Your task to perform on an android device: Search for Mexican restaurants on Maps Image 0: 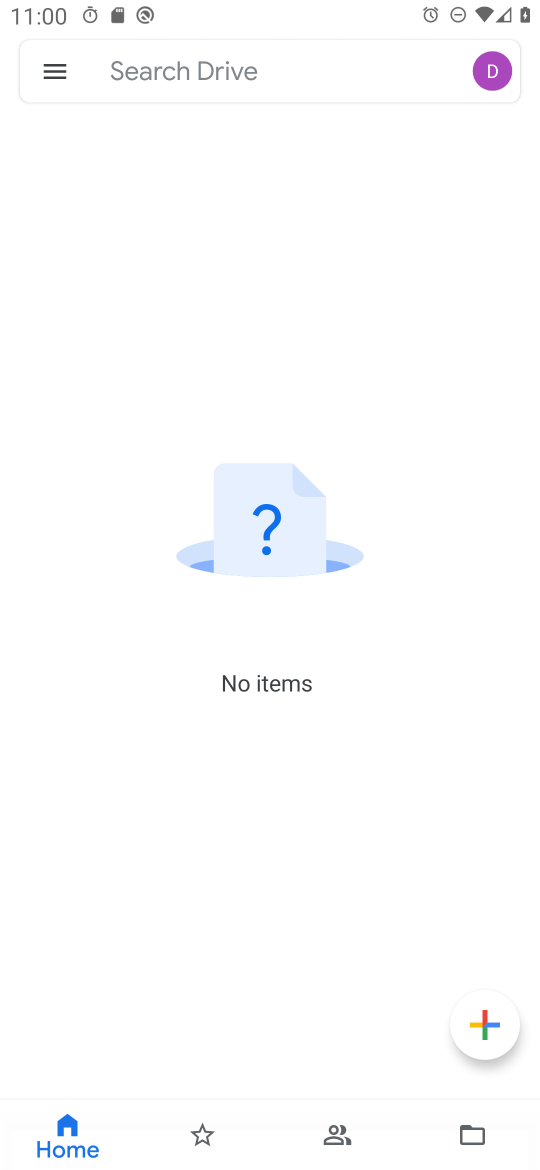
Step 0: press back button
Your task to perform on an android device: Search for Mexican restaurants on Maps Image 1: 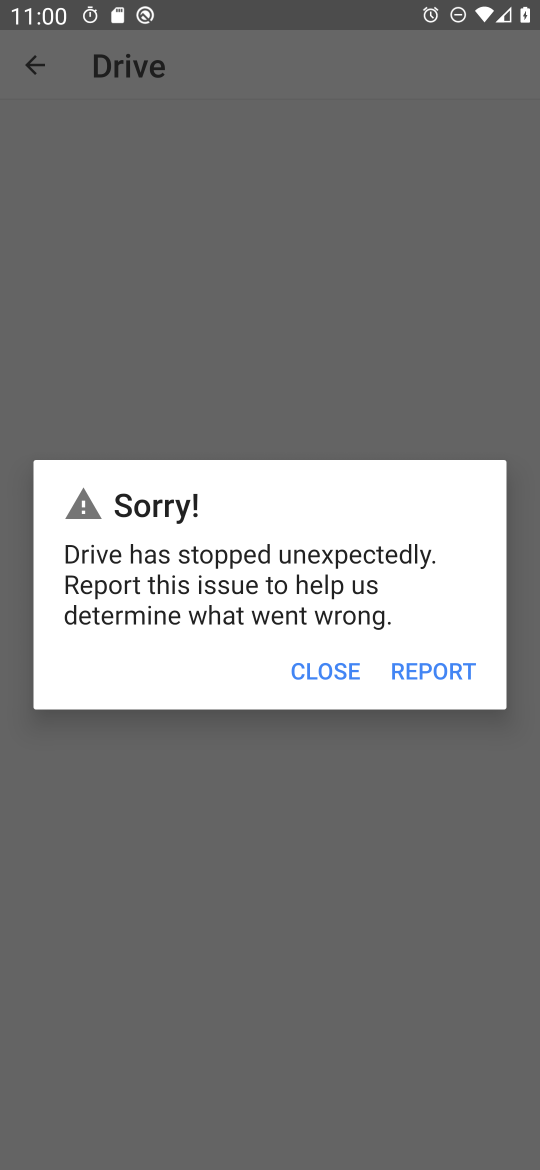
Step 1: press home button
Your task to perform on an android device: Search for Mexican restaurants on Maps Image 2: 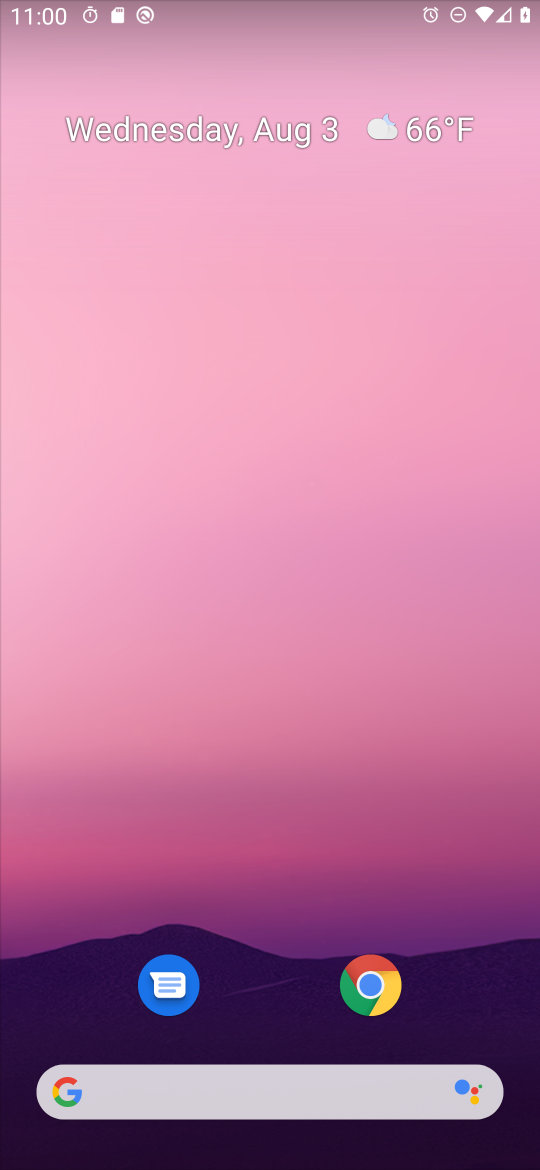
Step 2: drag from (292, 888) to (332, 399)
Your task to perform on an android device: Search for Mexican restaurants on Maps Image 3: 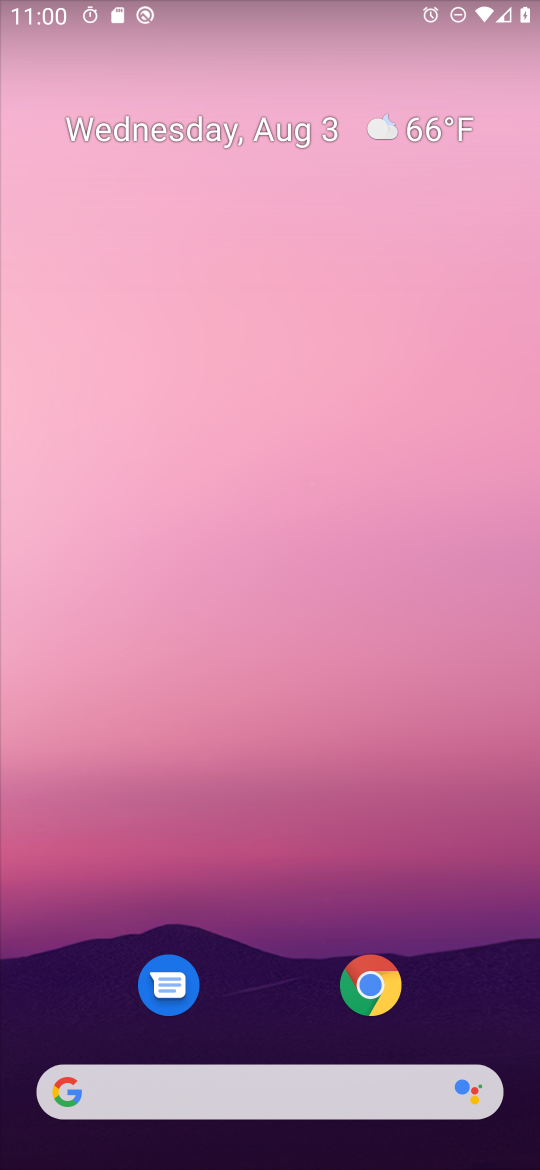
Step 3: drag from (227, 953) to (259, 232)
Your task to perform on an android device: Search for Mexican restaurants on Maps Image 4: 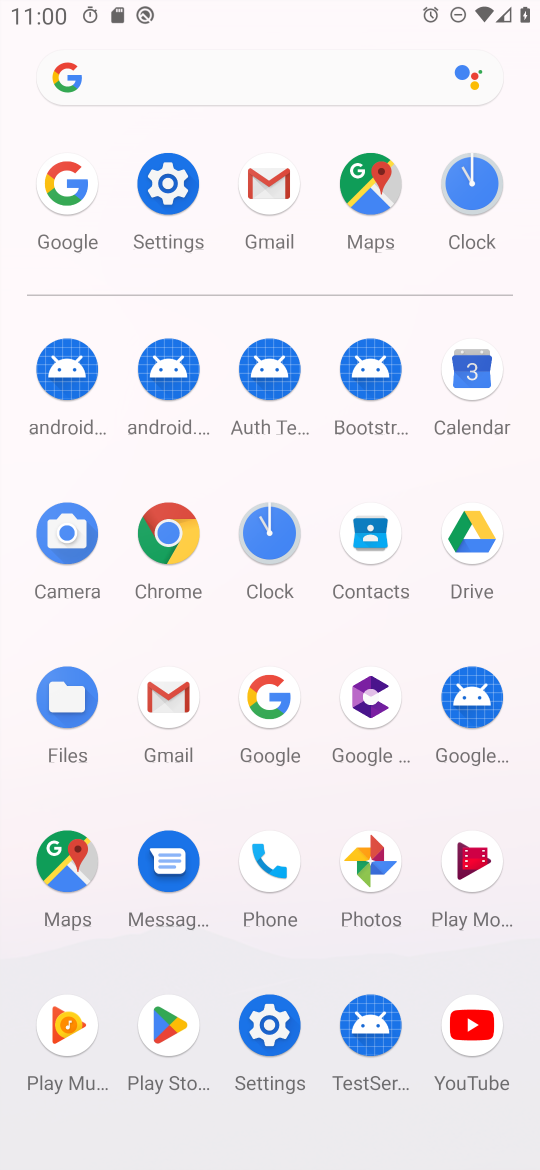
Step 4: click (66, 875)
Your task to perform on an android device: Search for Mexican restaurants on Maps Image 5: 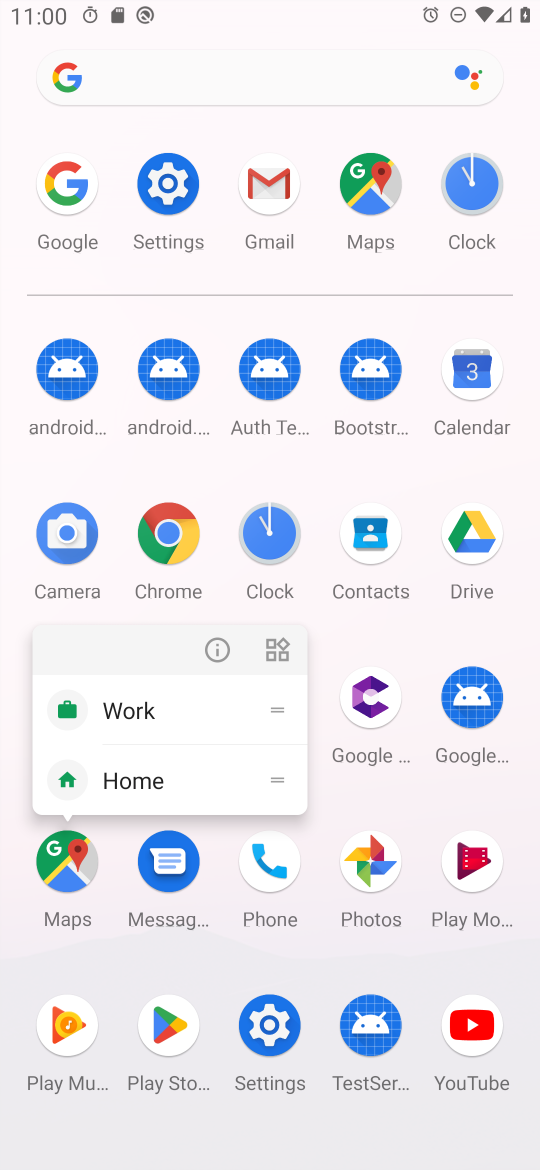
Step 5: click (66, 882)
Your task to perform on an android device: Search for Mexican restaurants on Maps Image 6: 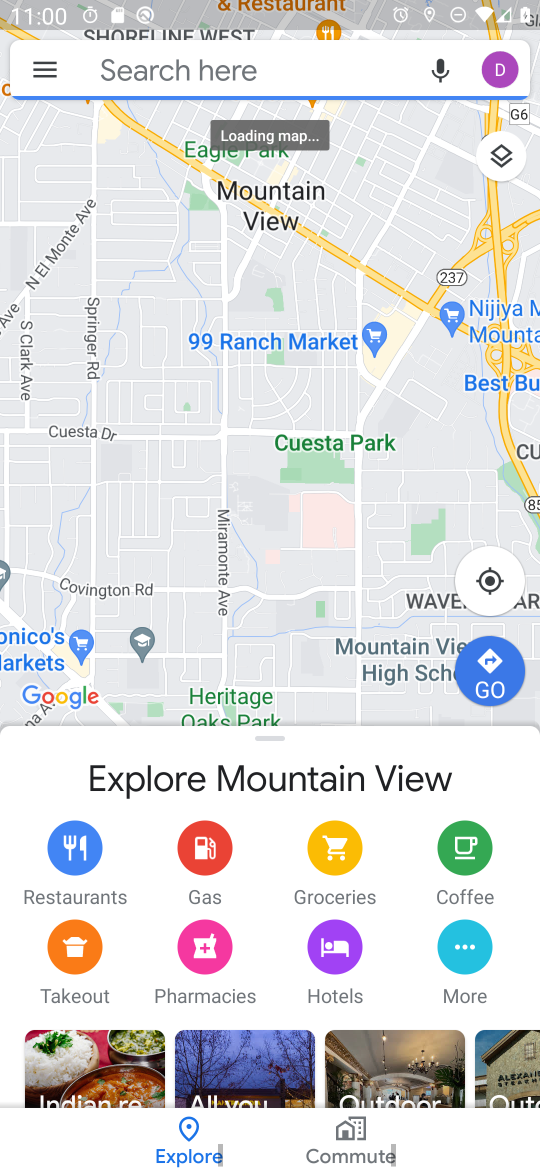
Step 6: click (291, 81)
Your task to perform on an android device: Search for Mexican restaurants on Maps Image 7: 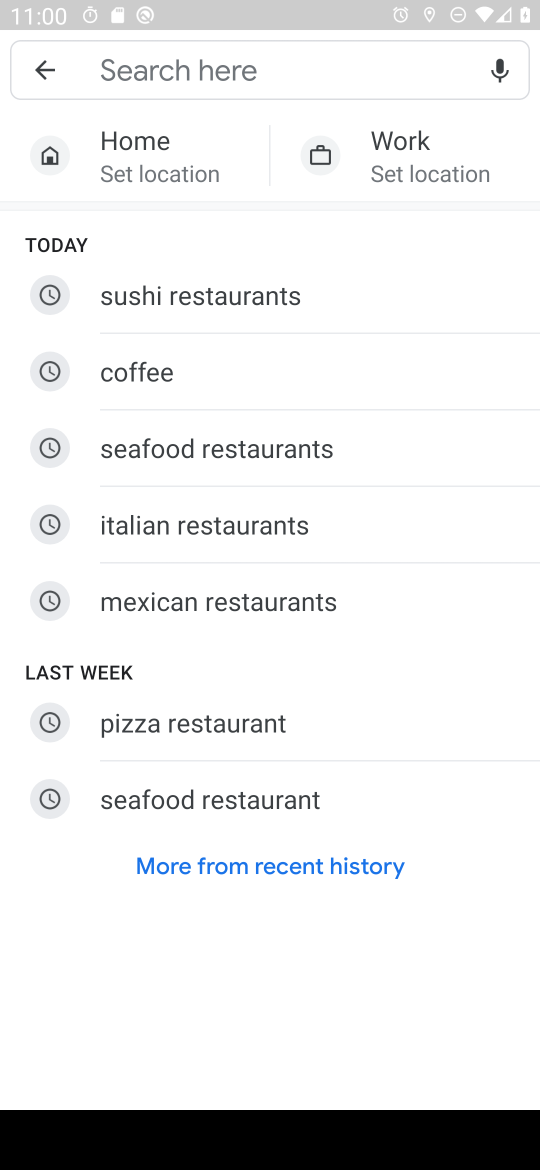
Step 7: type "Mexican restaurants"
Your task to perform on an android device: Search for Mexican restaurants on Maps Image 8: 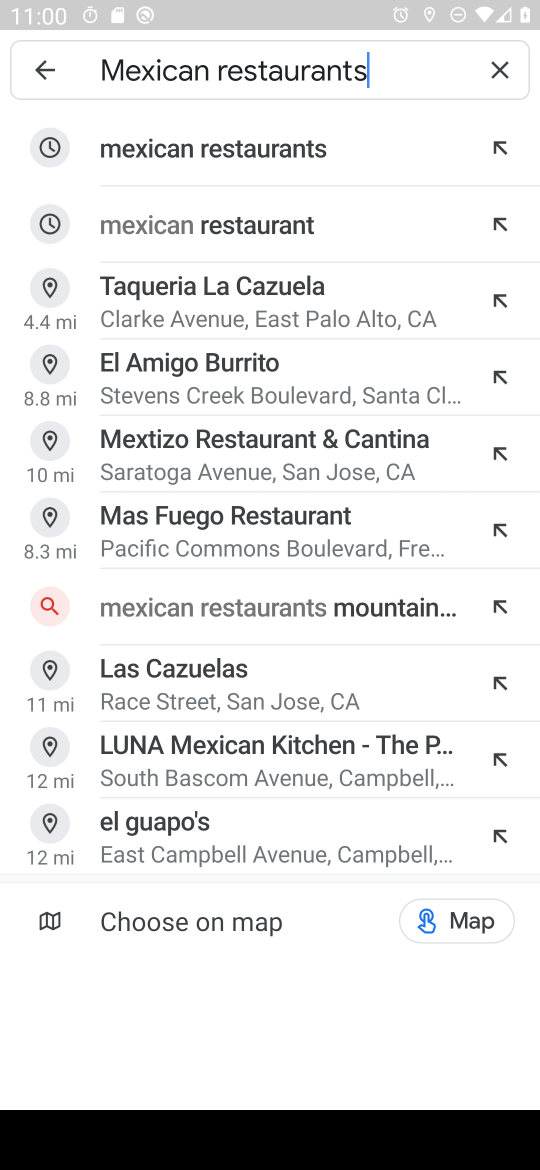
Step 8: click (220, 147)
Your task to perform on an android device: Search for Mexican restaurants on Maps Image 9: 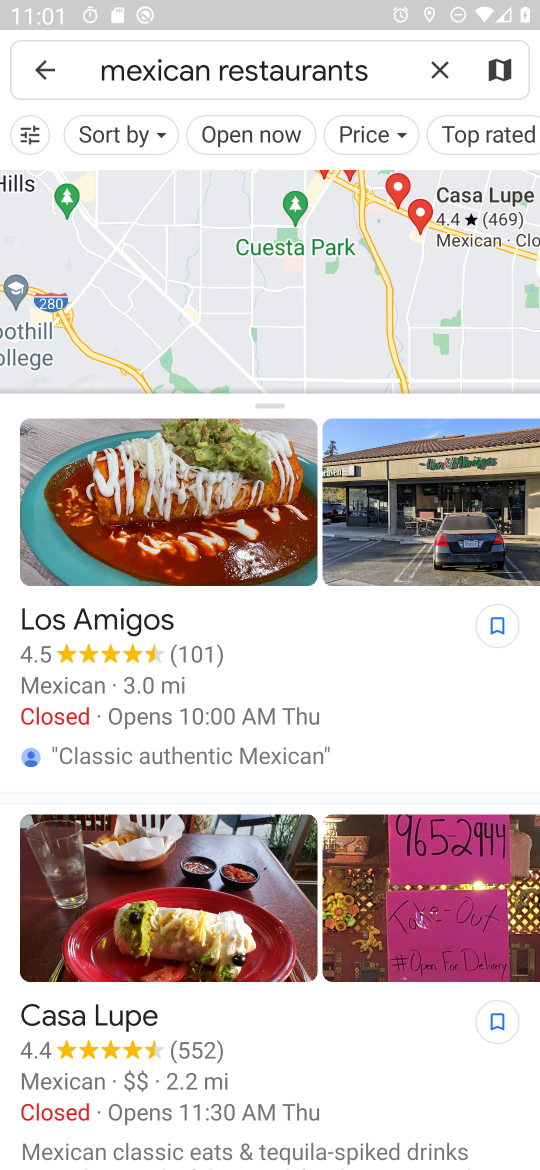
Step 9: task complete